Your task to perform on an android device: Turn off the flashlight Image 0: 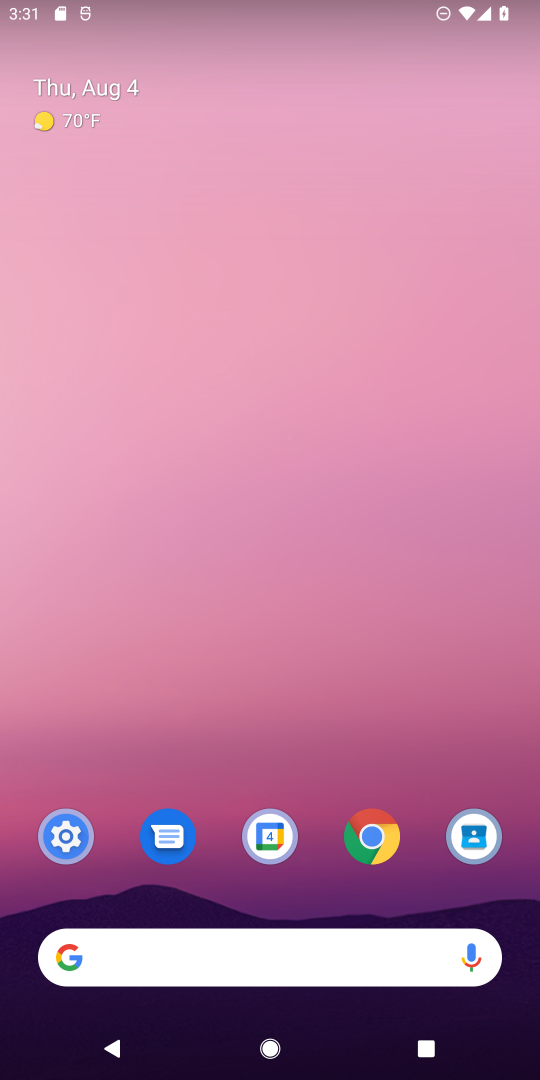
Step 0: drag from (210, 26) to (210, 1045)
Your task to perform on an android device: Turn off the flashlight Image 1: 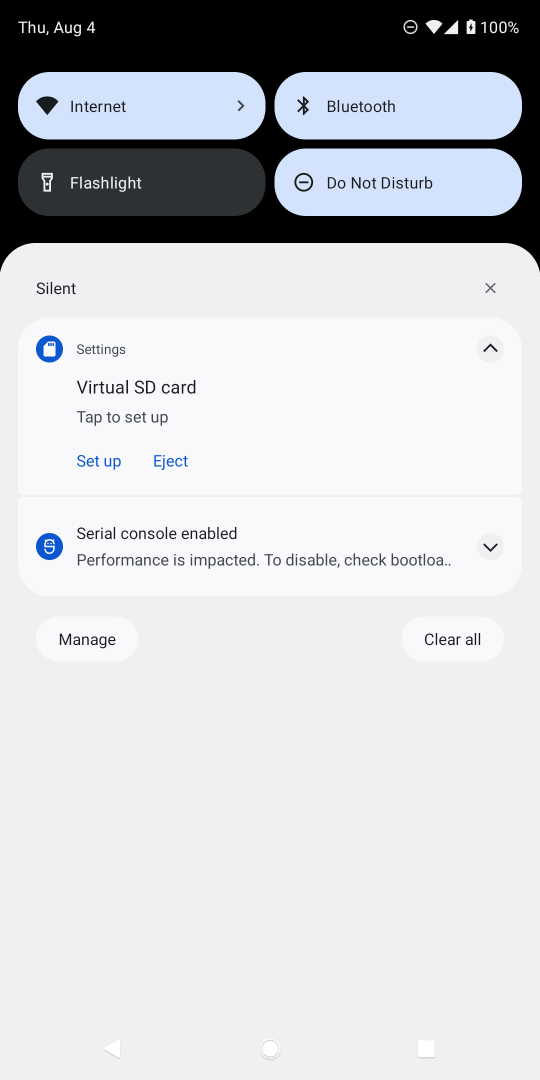
Step 1: task complete